Your task to perform on an android device: Go to Yahoo.com Image 0: 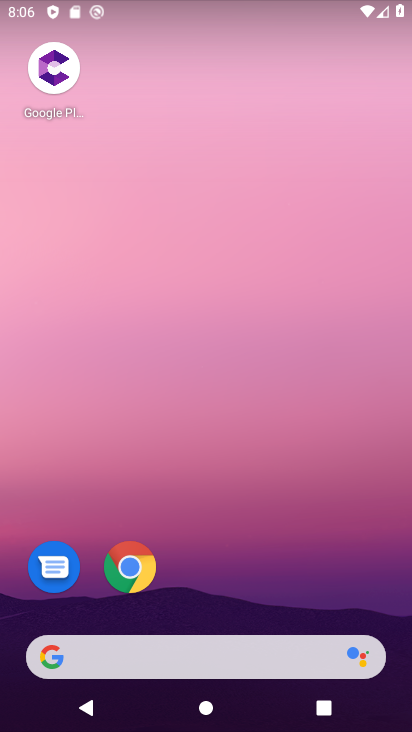
Step 0: drag from (229, 684) to (247, 295)
Your task to perform on an android device: Go to Yahoo.com Image 1: 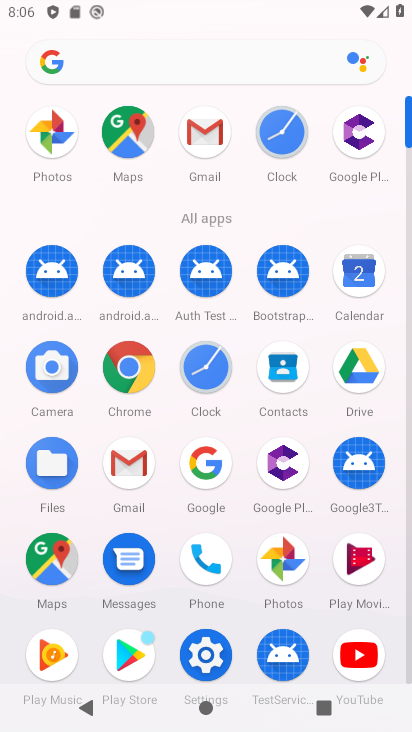
Step 1: click (354, 646)
Your task to perform on an android device: Go to Yahoo.com Image 2: 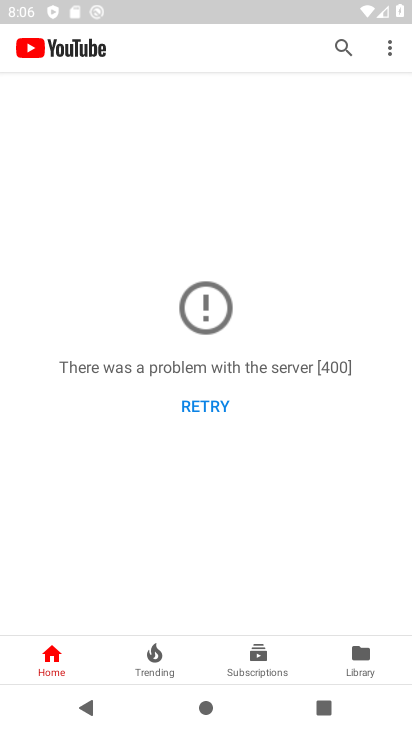
Step 2: press home button
Your task to perform on an android device: Go to Yahoo.com Image 3: 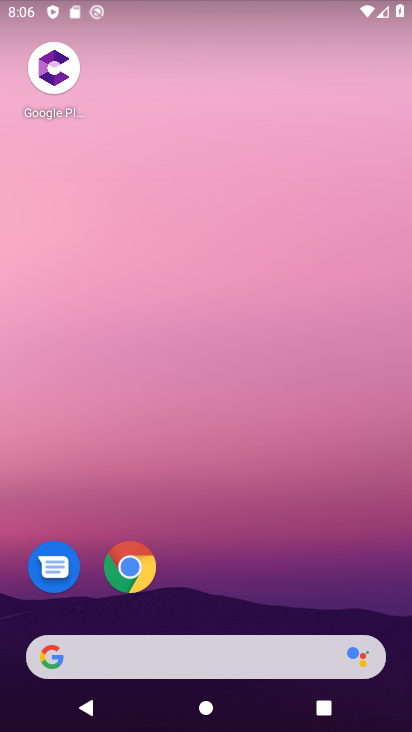
Step 3: click (139, 572)
Your task to perform on an android device: Go to Yahoo.com Image 4: 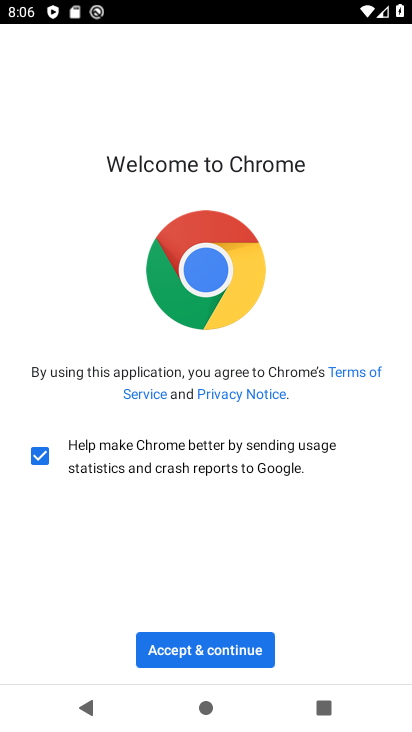
Step 4: click (203, 649)
Your task to perform on an android device: Go to Yahoo.com Image 5: 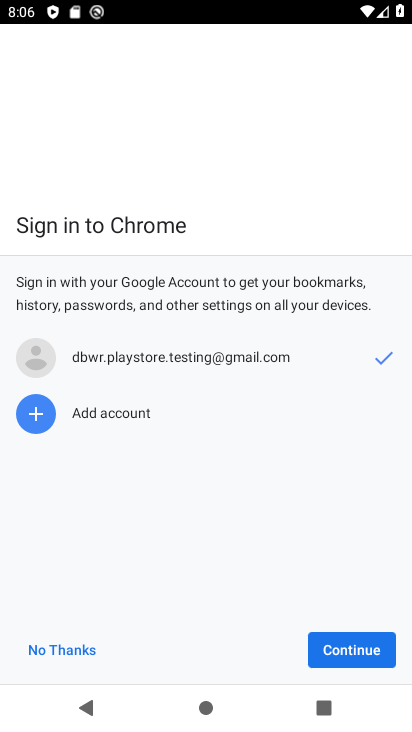
Step 5: click (348, 646)
Your task to perform on an android device: Go to Yahoo.com Image 6: 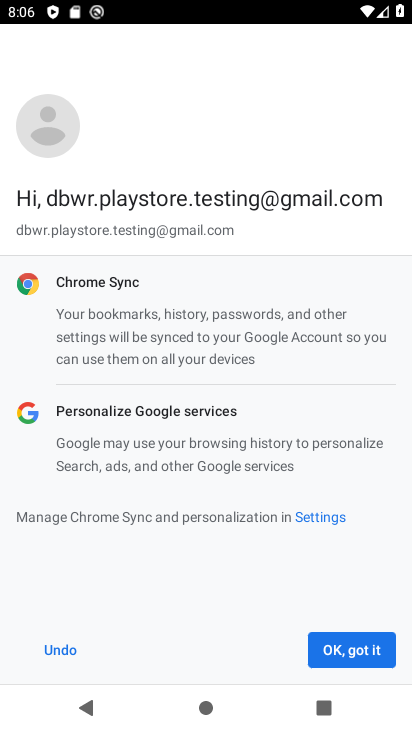
Step 6: click (357, 640)
Your task to perform on an android device: Go to Yahoo.com Image 7: 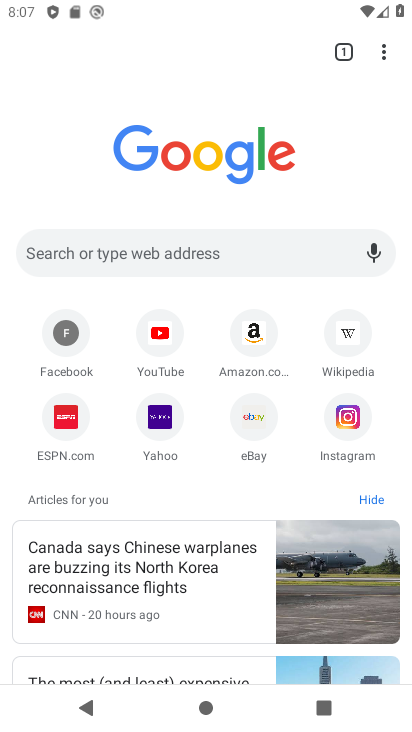
Step 7: click (154, 422)
Your task to perform on an android device: Go to Yahoo.com Image 8: 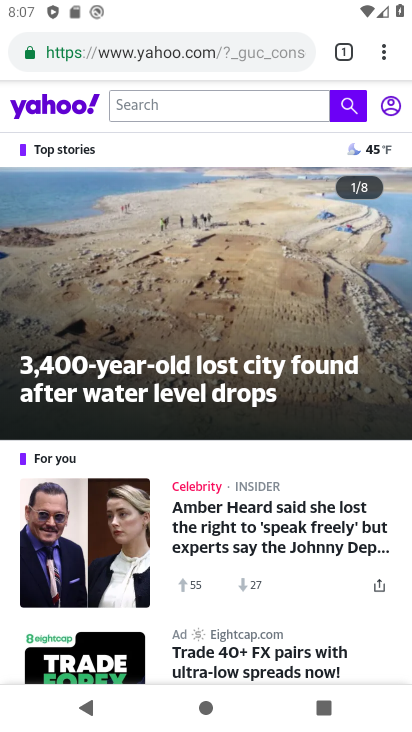
Step 8: task complete